Your task to perform on an android device: Open calendar and show me the first week of next month Image 0: 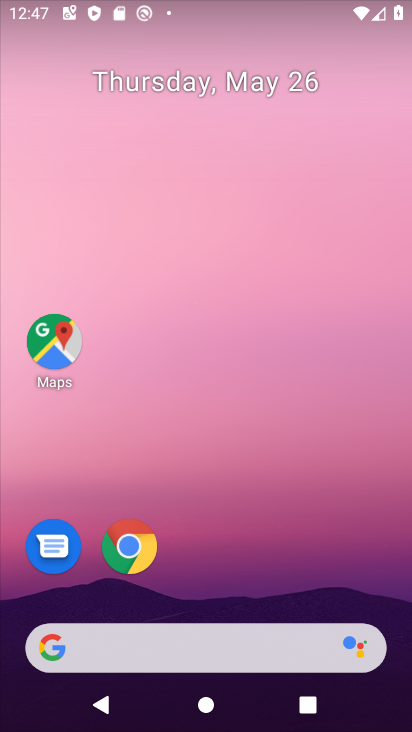
Step 0: drag from (267, 560) to (235, 78)
Your task to perform on an android device: Open calendar and show me the first week of next month Image 1: 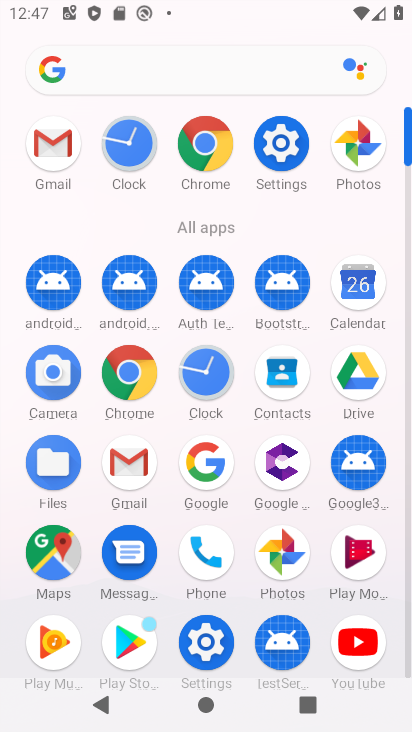
Step 1: click (367, 282)
Your task to perform on an android device: Open calendar and show me the first week of next month Image 2: 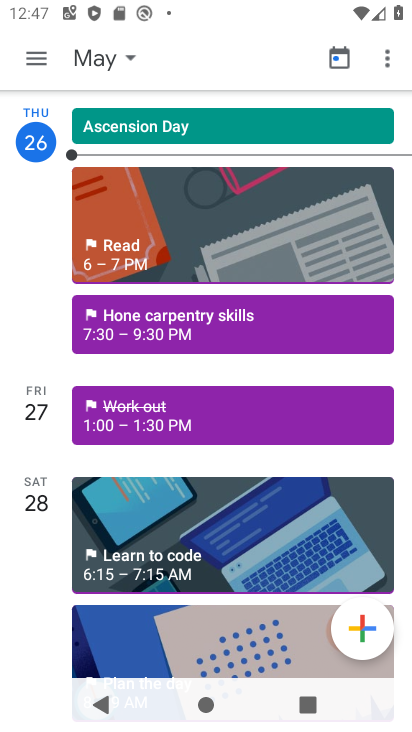
Step 2: click (124, 67)
Your task to perform on an android device: Open calendar and show me the first week of next month Image 3: 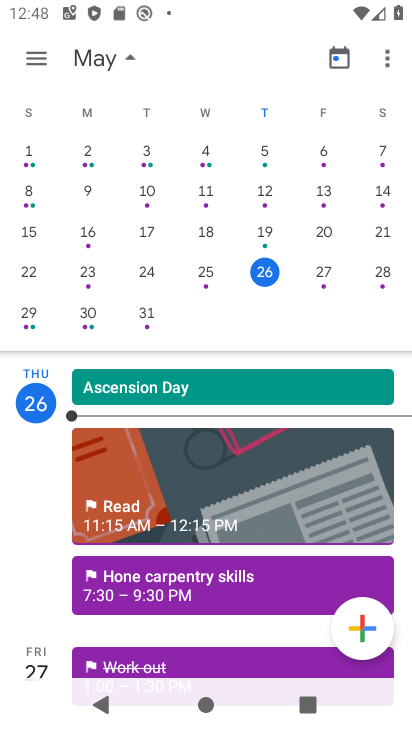
Step 3: drag from (382, 223) to (51, 263)
Your task to perform on an android device: Open calendar and show me the first week of next month Image 4: 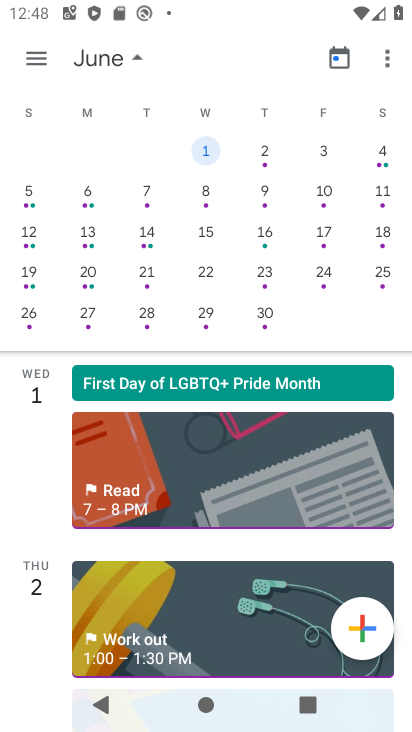
Step 4: click (208, 185)
Your task to perform on an android device: Open calendar and show me the first week of next month Image 5: 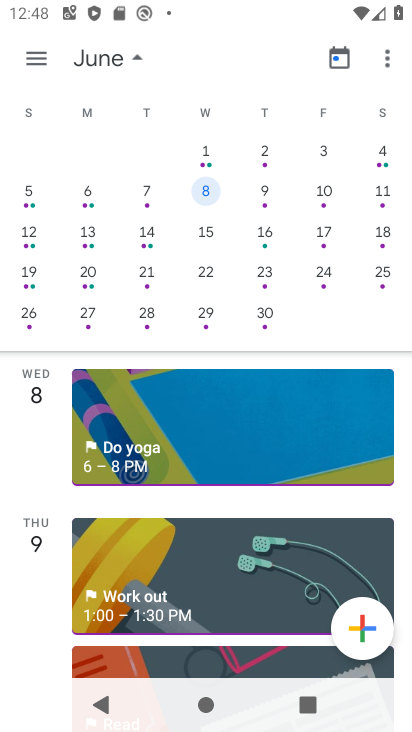
Step 5: click (209, 158)
Your task to perform on an android device: Open calendar and show me the first week of next month Image 6: 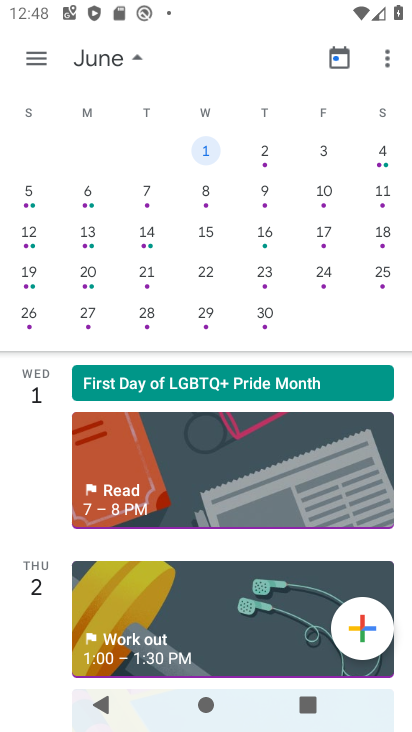
Step 6: task complete